Your task to perform on an android device: turn on translation in the chrome app Image 0: 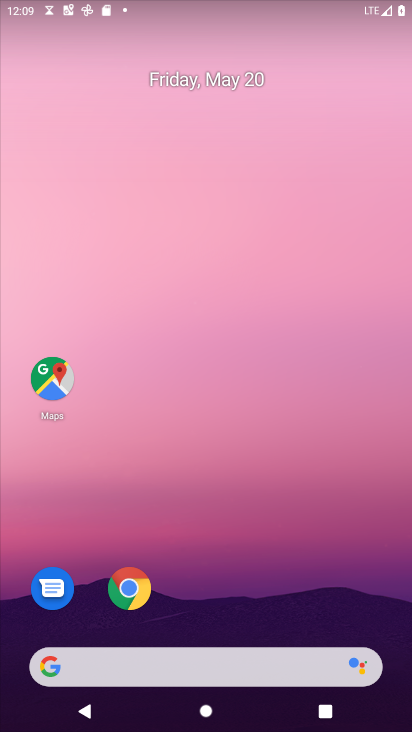
Step 0: drag from (280, 551) to (154, 24)
Your task to perform on an android device: turn on translation in the chrome app Image 1: 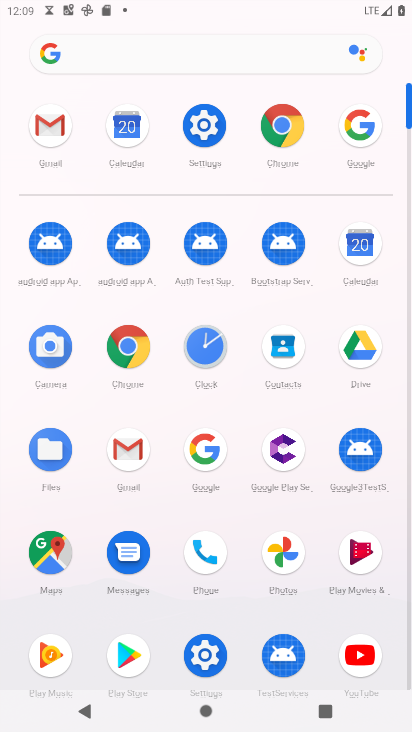
Step 1: click (275, 132)
Your task to perform on an android device: turn on translation in the chrome app Image 2: 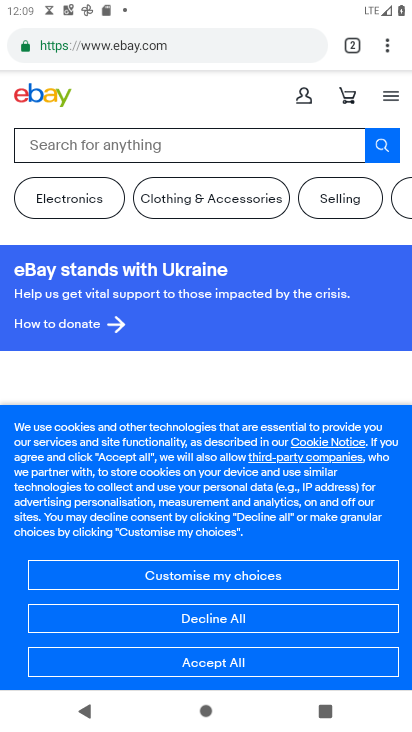
Step 2: click (382, 37)
Your task to perform on an android device: turn on translation in the chrome app Image 3: 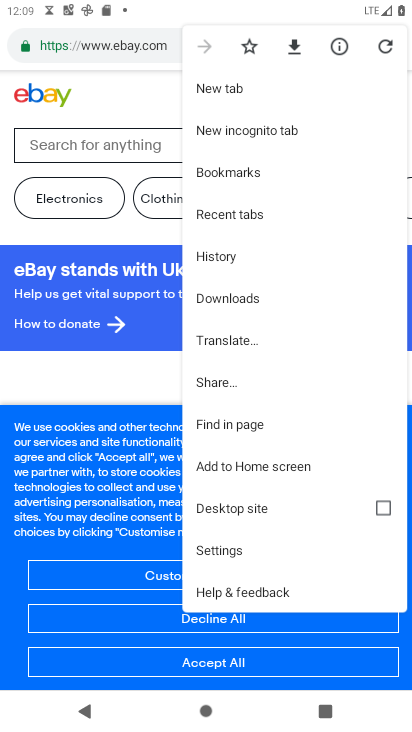
Step 3: click (261, 543)
Your task to perform on an android device: turn on translation in the chrome app Image 4: 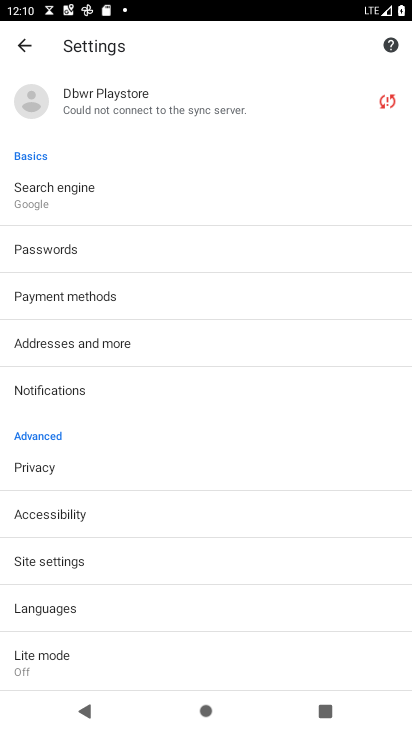
Step 4: click (134, 605)
Your task to perform on an android device: turn on translation in the chrome app Image 5: 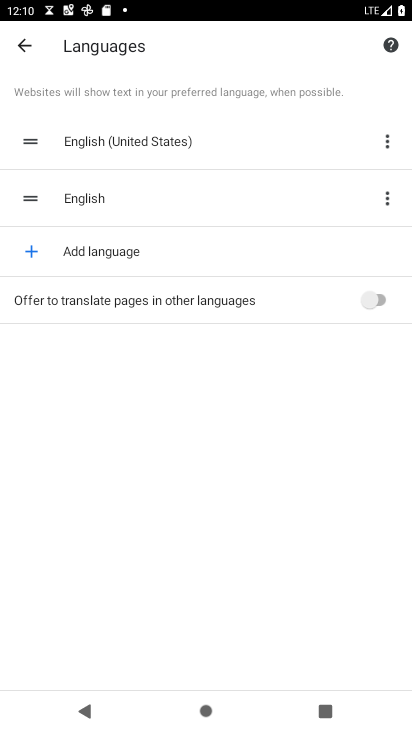
Step 5: click (376, 301)
Your task to perform on an android device: turn on translation in the chrome app Image 6: 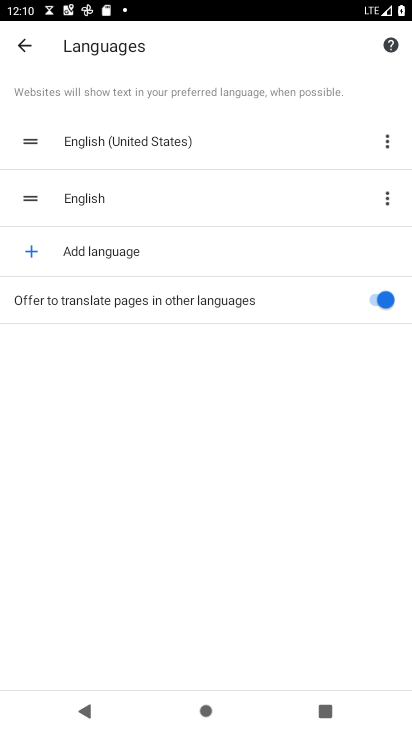
Step 6: task complete